Your task to perform on an android device: Open Google Chrome Image 0: 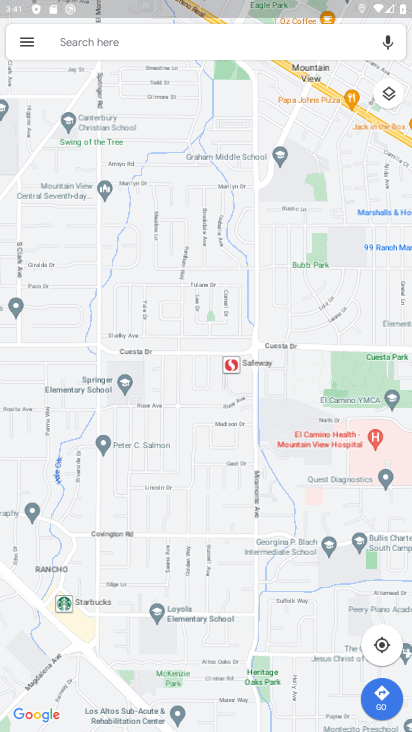
Step 0: press back button
Your task to perform on an android device: Open Google Chrome Image 1: 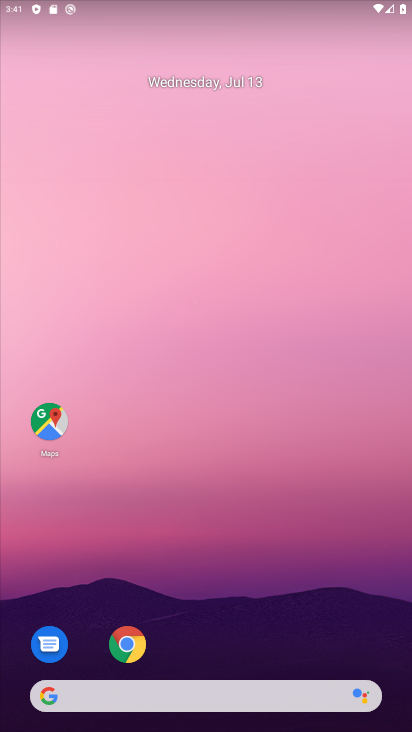
Step 1: click (136, 630)
Your task to perform on an android device: Open Google Chrome Image 2: 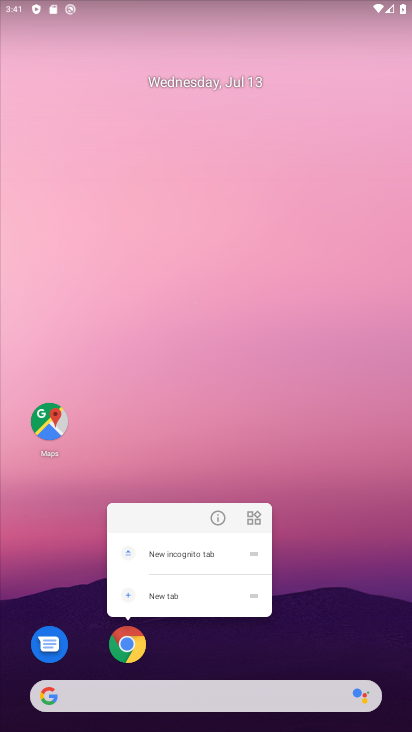
Step 2: click (132, 641)
Your task to perform on an android device: Open Google Chrome Image 3: 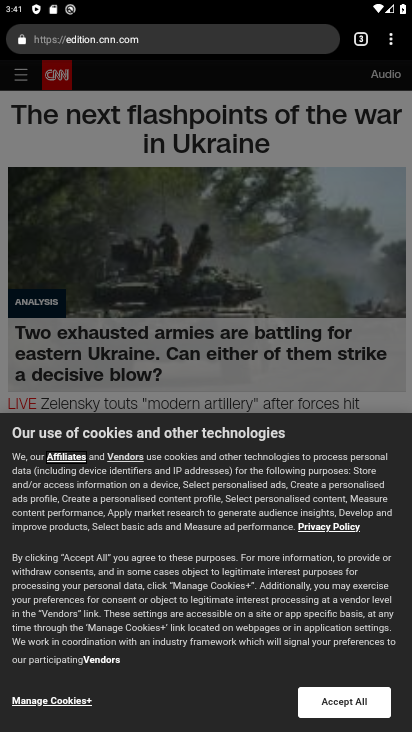
Step 3: task complete